Your task to perform on an android device: turn off sleep mode Image 0: 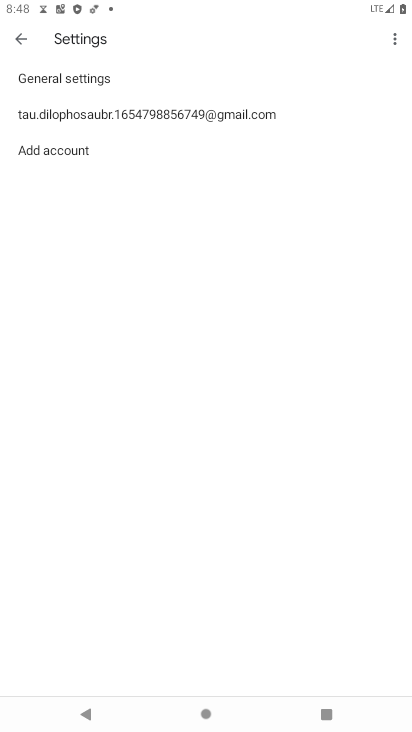
Step 0: press home button
Your task to perform on an android device: turn off sleep mode Image 1: 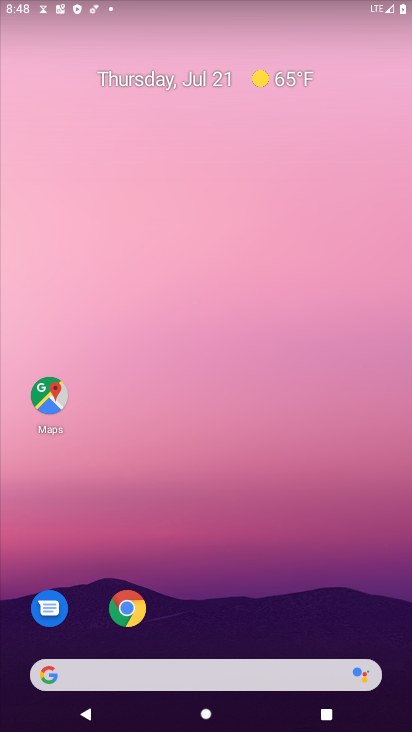
Step 1: drag from (160, 674) to (146, 110)
Your task to perform on an android device: turn off sleep mode Image 2: 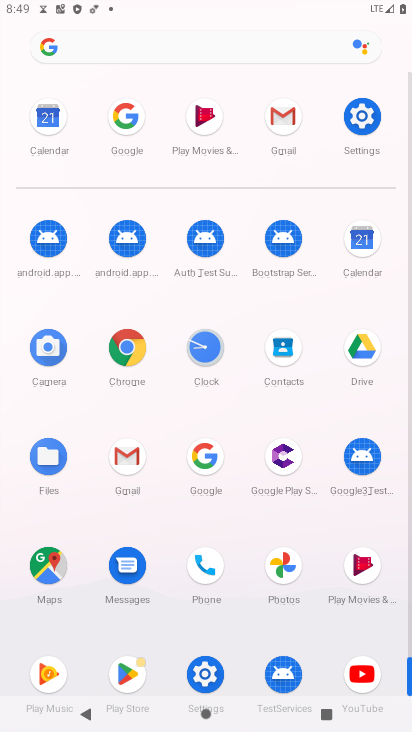
Step 2: click (363, 117)
Your task to perform on an android device: turn off sleep mode Image 3: 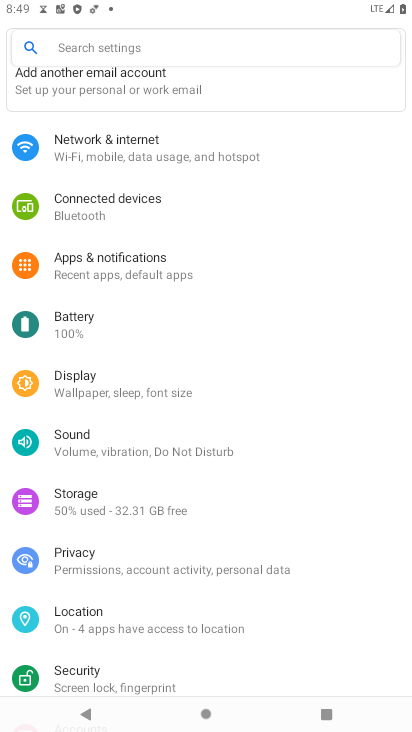
Step 3: drag from (185, 599) to (260, 495)
Your task to perform on an android device: turn off sleep mode Image 4: 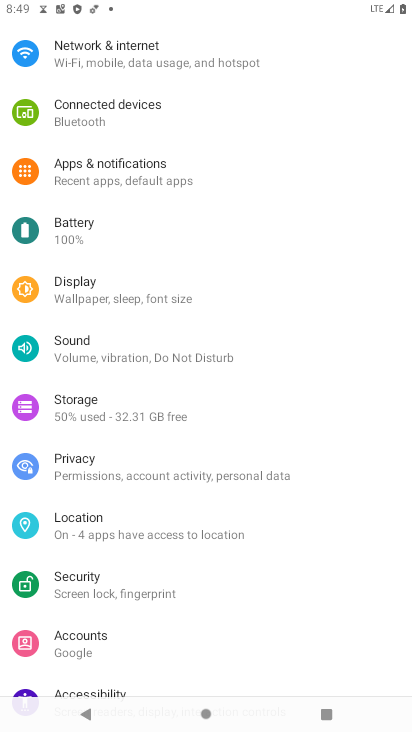
Step 4: click (98, 305)
Your task to perform on an android device: turn off sleep mode Image 5: 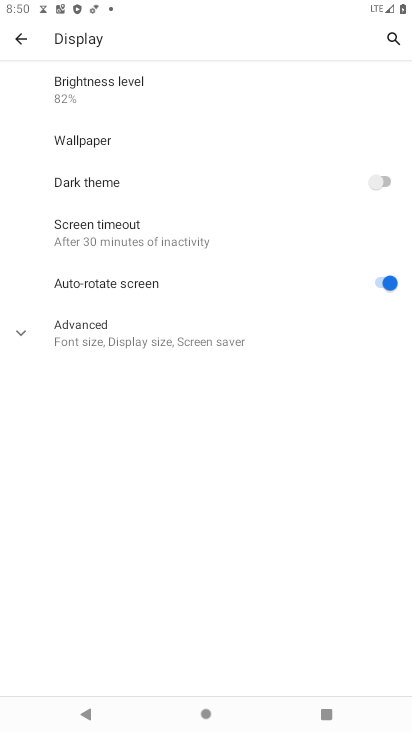
Step 5: task complete